Your task to perform on an android device: Search for Italian restaurants on Maps Image 0: 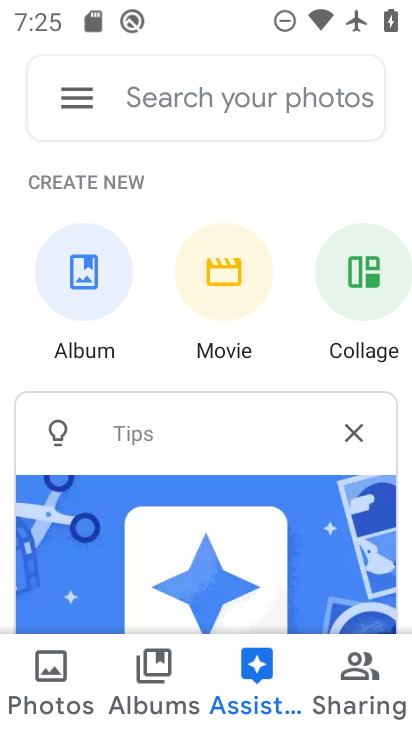
Step 0: press home button
Your task to perform on an android device: Search for Italian restaurants on Maps Image 1: 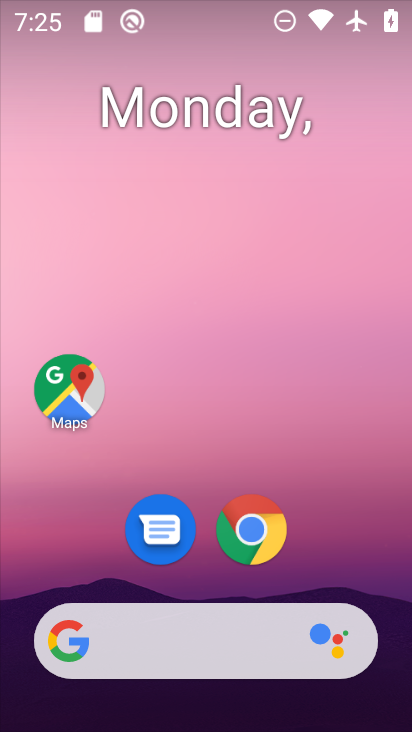
Step 1: drag from (312, 439) to (217, 14)
Your task to perform on an android device: Search for Italian restaurants on Maps Image 2: 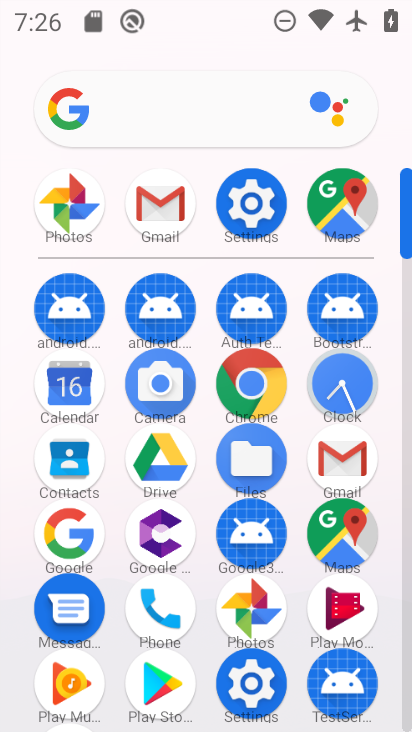
Step 2: click (338, 537)
Your task to perform on an android device: Search for Italian restaurants on Maps Image 3: 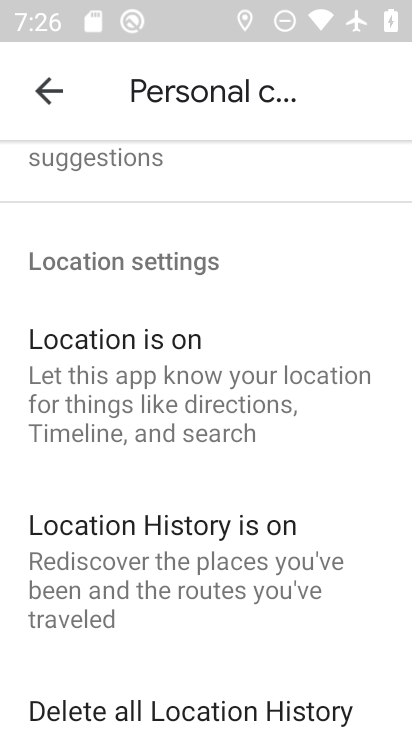
Step 3: click (48, 93)
Your task to perform on an android device: Search for Italian restaurants on Maps Image 4: 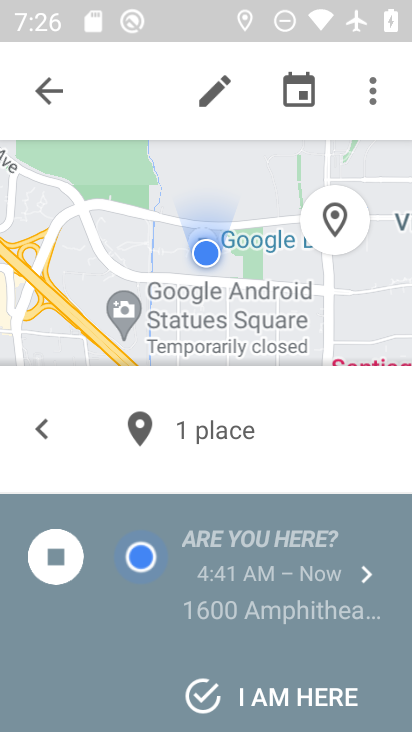
Step 4: click (48, 93)
Your task to perform on an android device: Search for Italian restaurants on Maps Image 5: 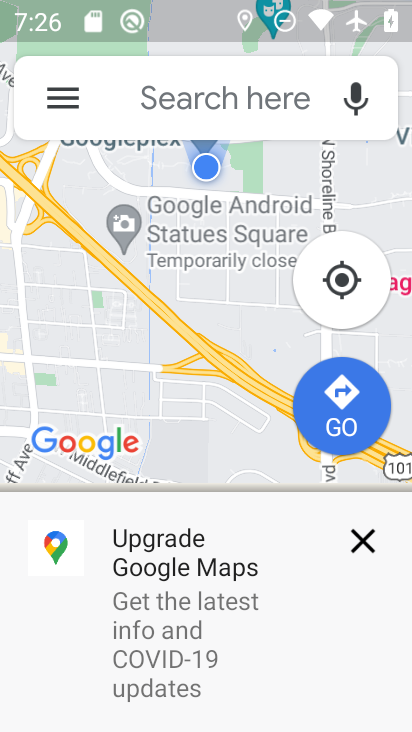
Step 5: click (213, 98)
Your task to perform on an android device: Search for Italian restaurants on Maps Image 6: 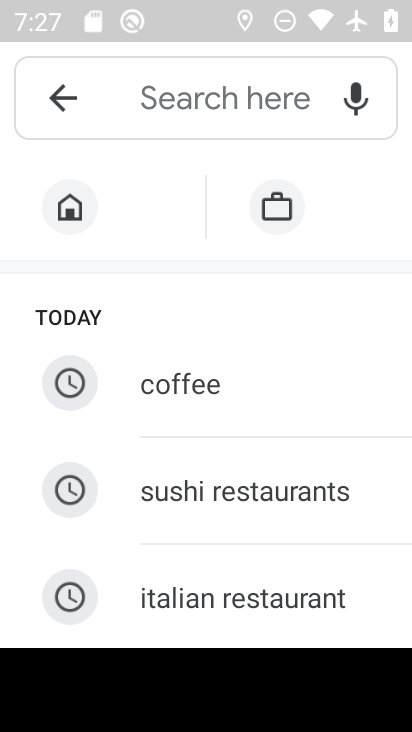
Step 6: click (252, 611)
Your task to perform on an android device: Search for Italian restaurants on Maps Image 7: 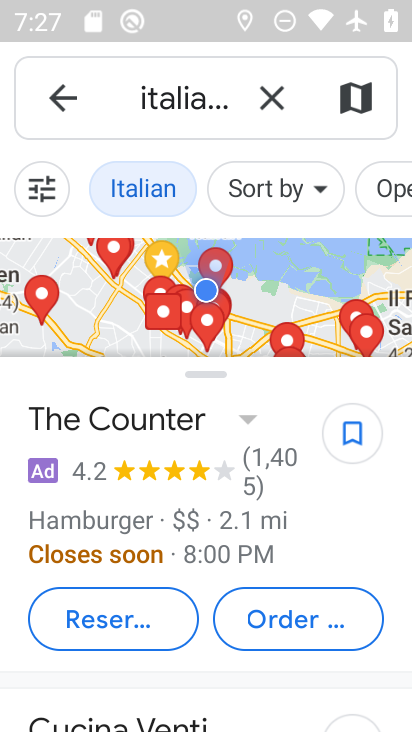
Step 7: task complete